Your task to perform on an android device: Go to Amazon Image 0: 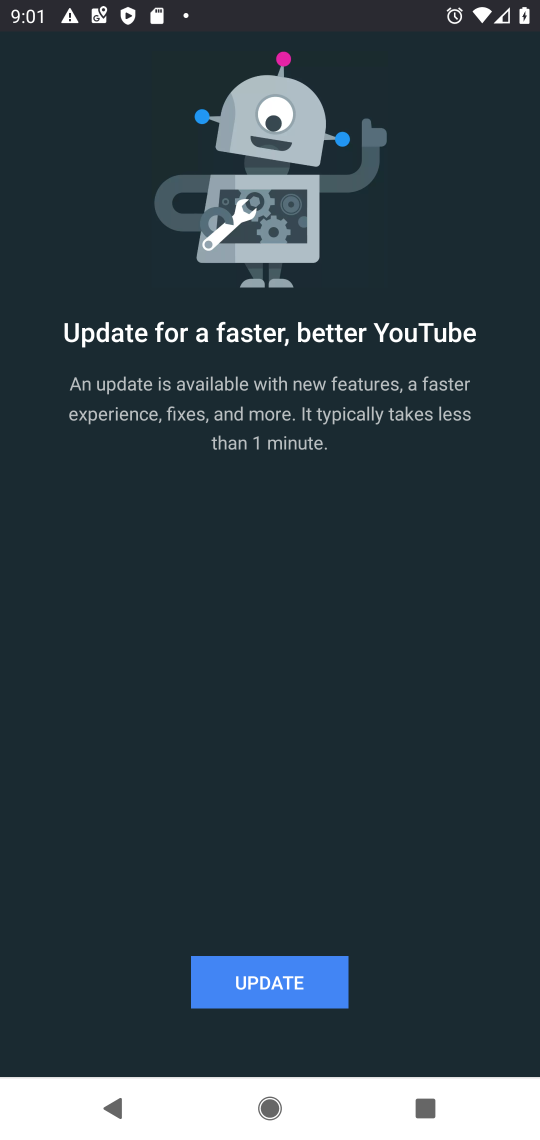
Step 0: press home button
Your task to perform on an android device: Go to Amazon Image 1: 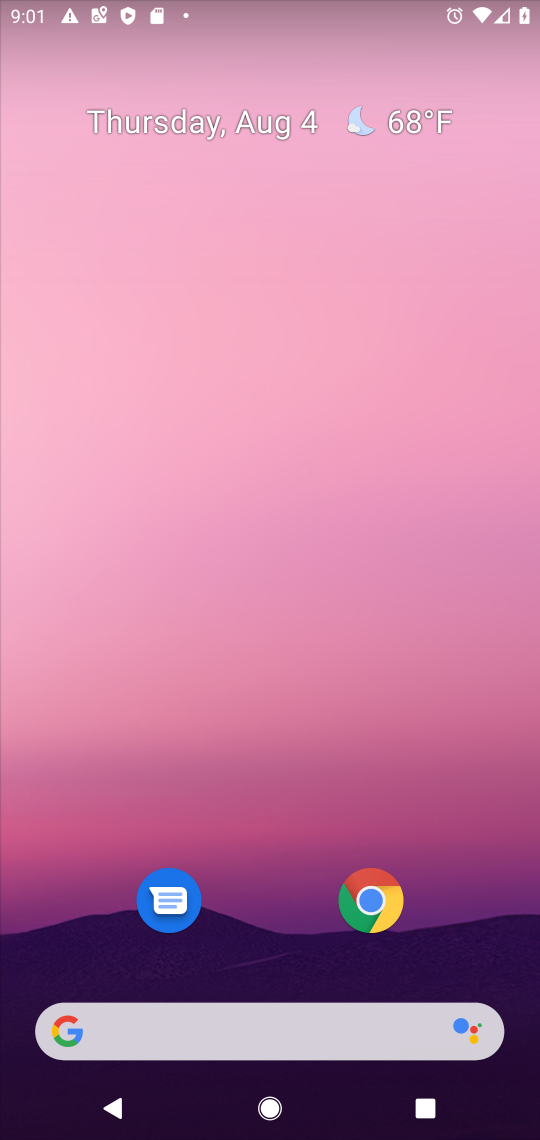
Step 1: click (374, 901)
Your task to perform on an android device: Go to Amazon Image 2: 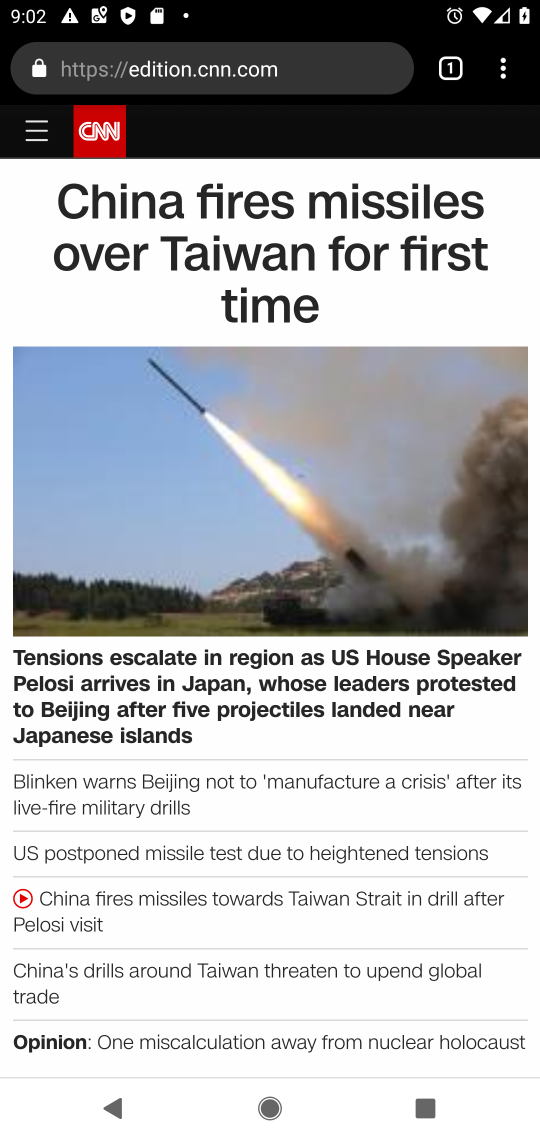
Step 2: click (302, 67)
Your task to perform on an android device: Go to Amazon Image 3: 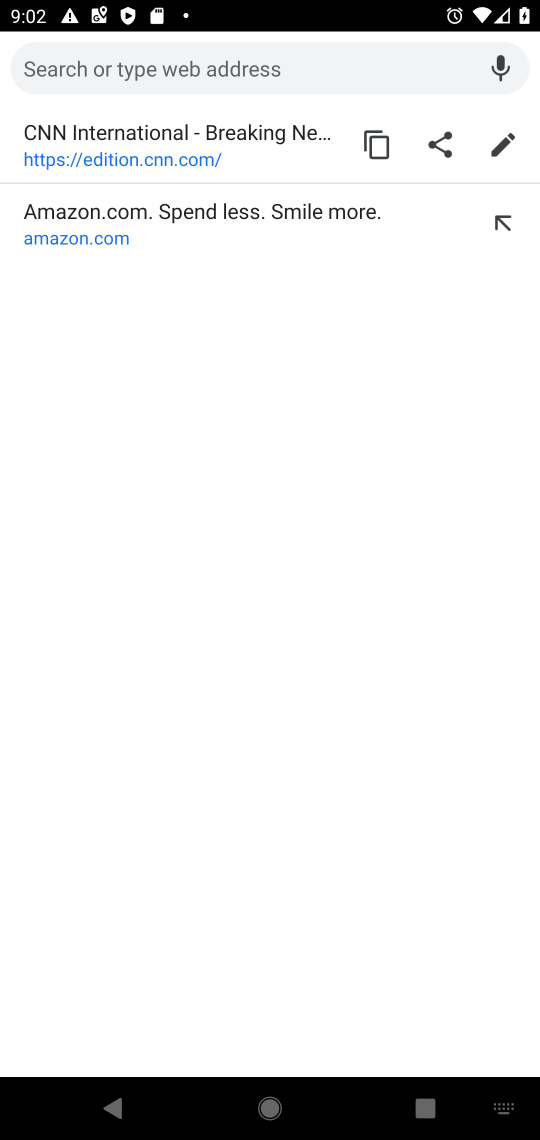
Step 3: type "Amazon"
Your task to perform on an android device: Go to Amazon Image 4: 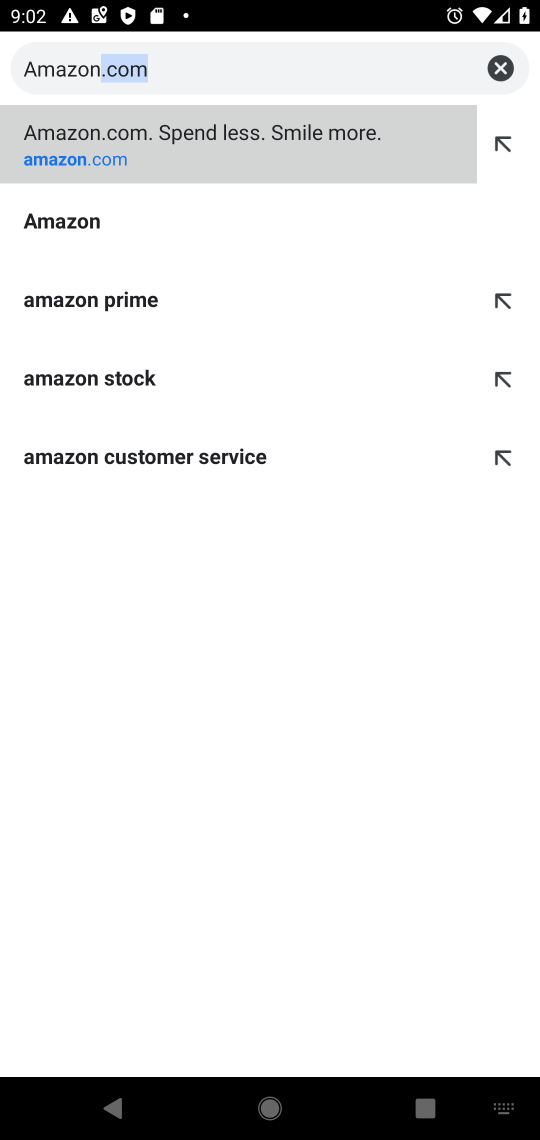
Step 4: click (86, 226)
Your task to perform on an android device: Go to Amazon Image 5: 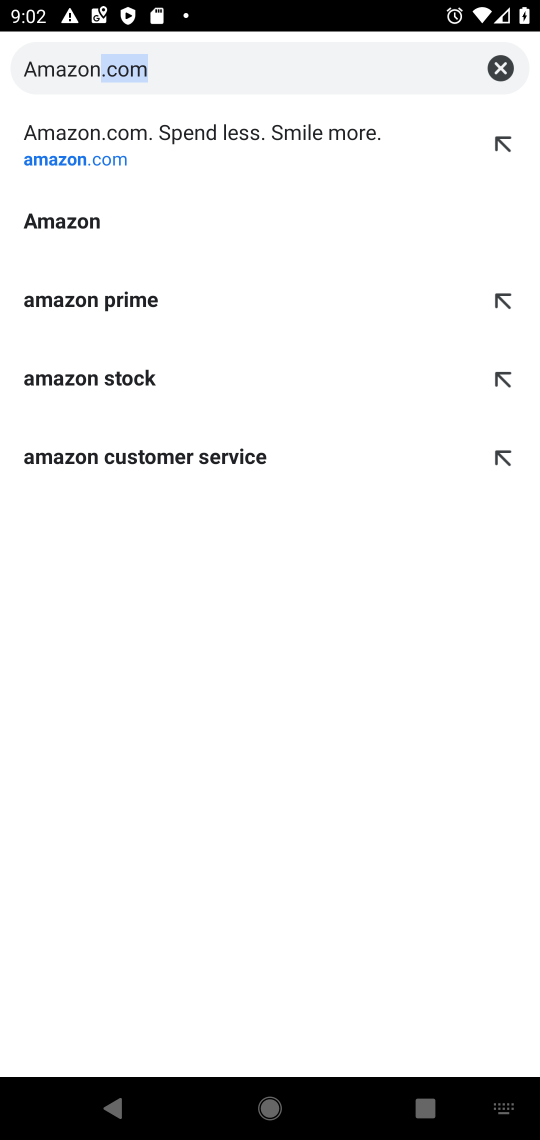
Step 5: click (91, 152)
Your task to perform on an android device: Go to Amazon Image 6: 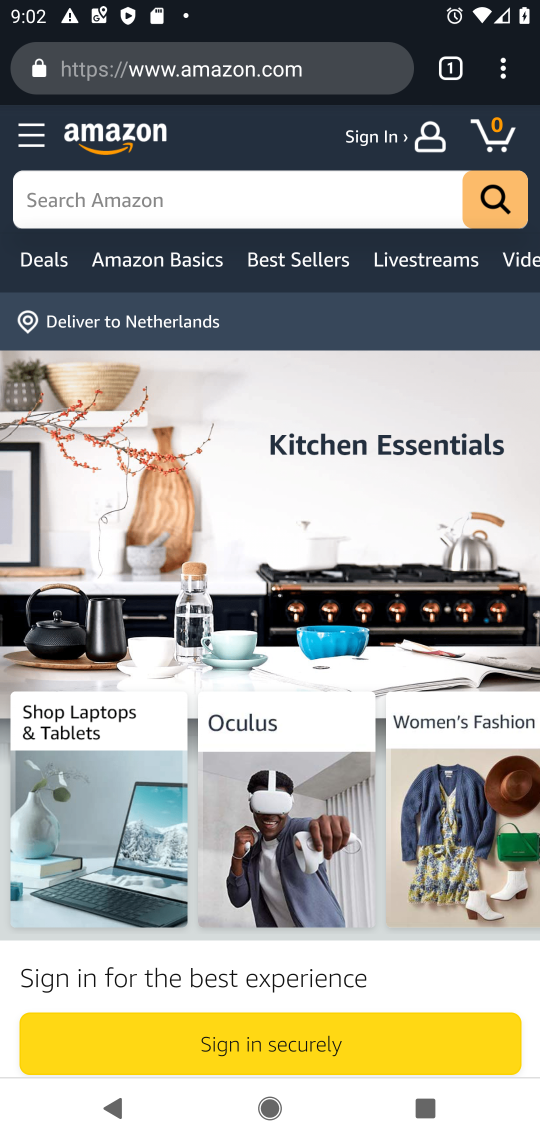
Step 6: task complete